Your task to perform on an android device: Clear all items from cart on bestbuy. Add razer huntsman to the cart on bestbuy Image 0: 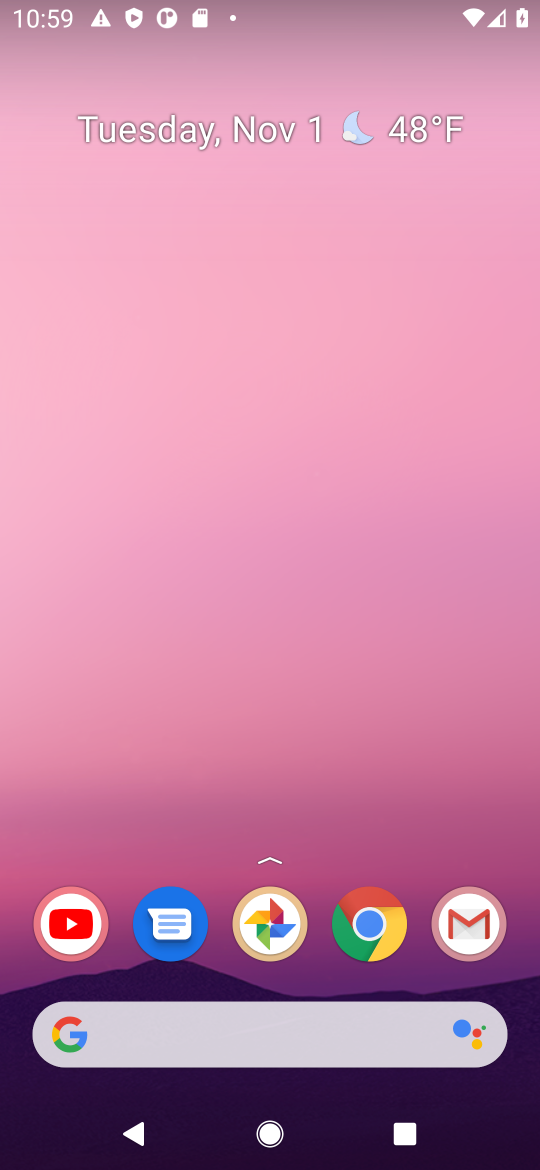
Step 0: click (382, 944)
Your task to perform on an android device: Clear all items from cart on bestbuy. Add razer huntsman to the cart on bestbuy Image 1: 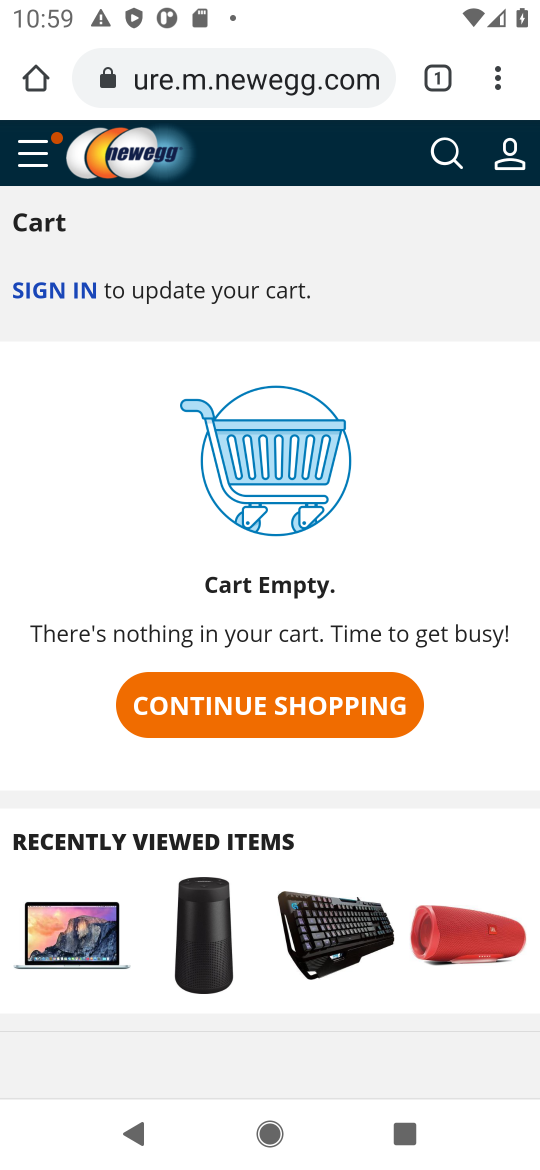
Step 1: click (289, 95)
Your task to perform on an android device: Clear all items from cart on bestbuy. Add razer huntsman to the cart on bestbuy Image 2: 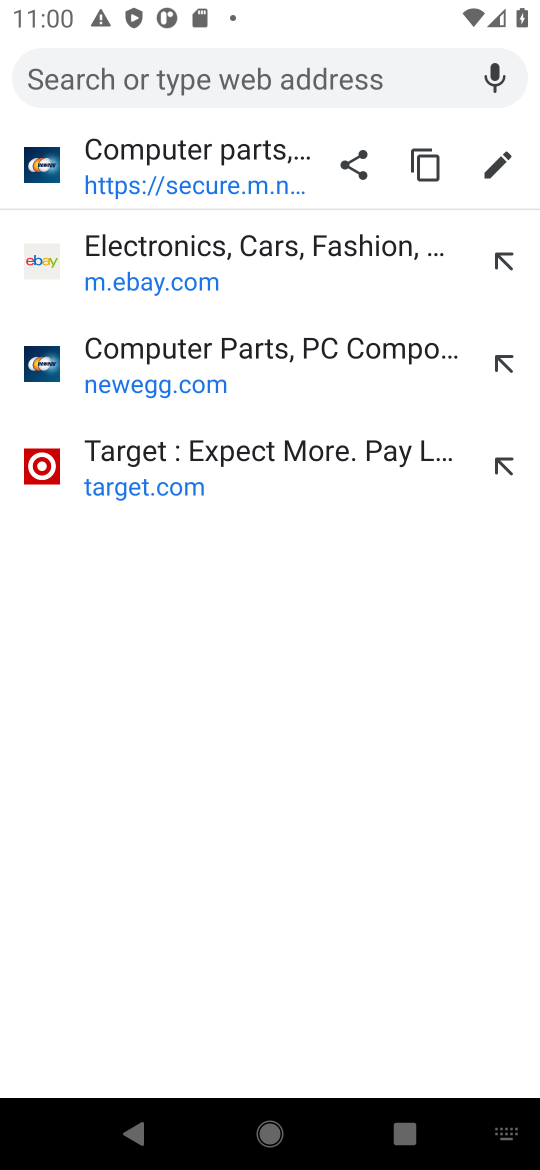
Step 2: type "bestbuy"
Your task to perform on an android device: Clear all items from cart on bestbuy. Add razer huntsman to the cart on bestbuy Image 3: 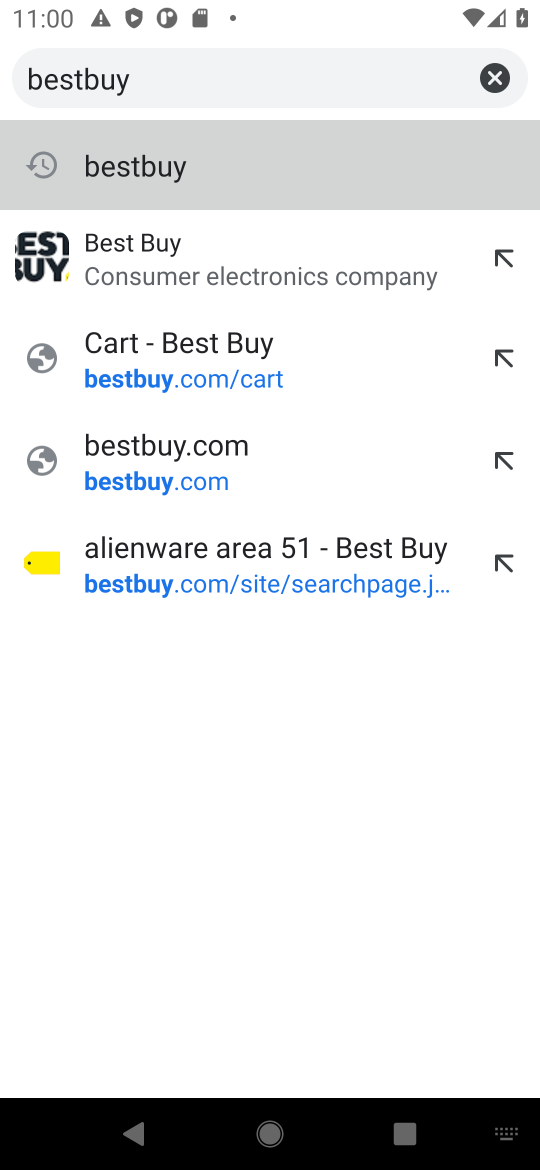
Step 3: click (173, 168)
Your task to perform on an android device: Clear all items from cart on bestbuy. Add razer huntsman to the cart on bestbuy Image 4: 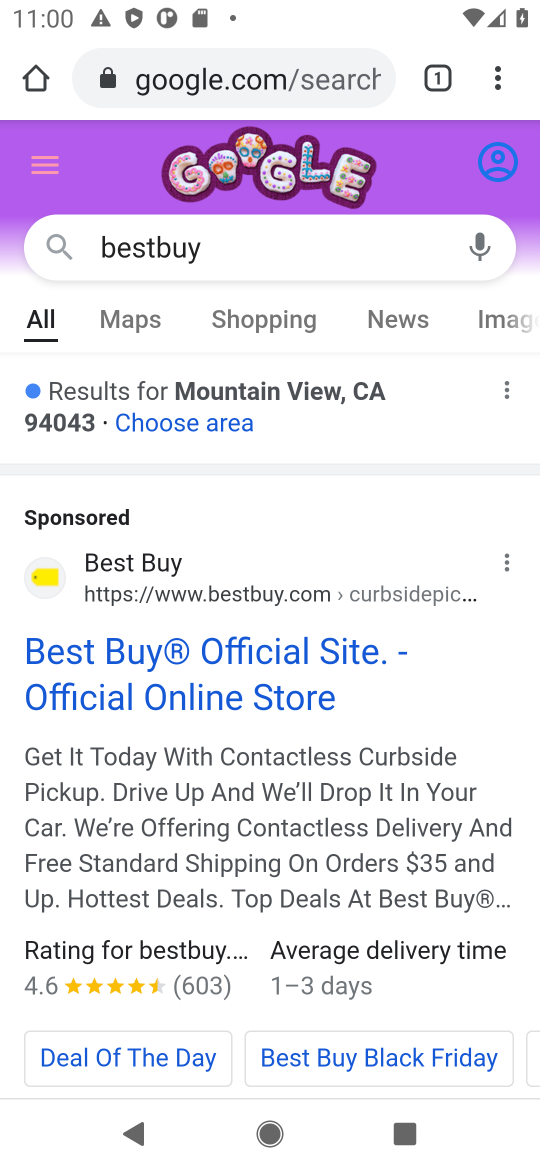
Step 4: click (80, 655)
Your task to perform on an android device: Clear all items from cart on bestbuy. Add razer huntsman to the cart on bestbuy Image 5: 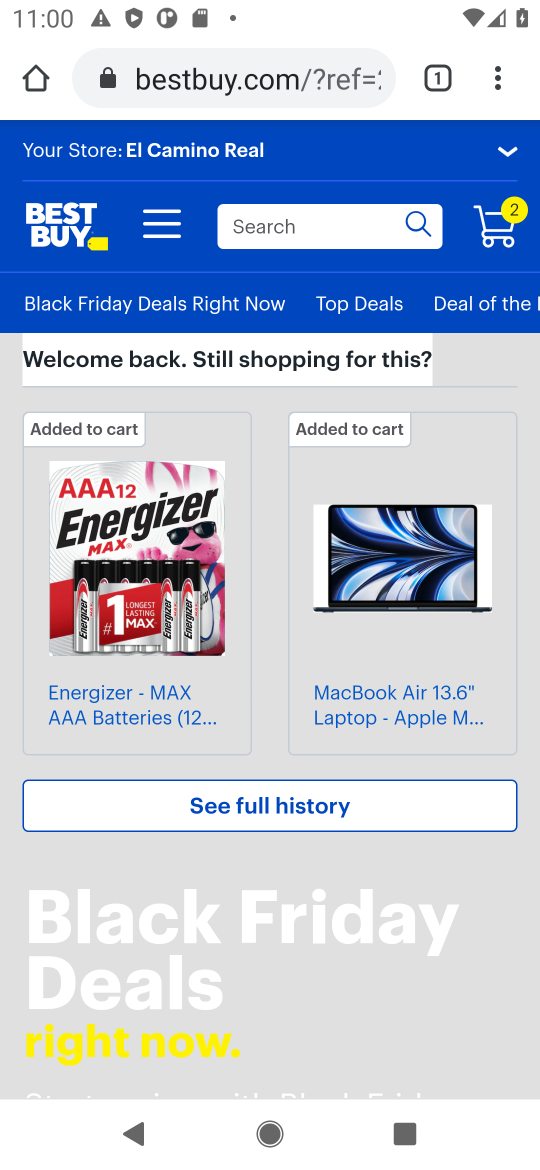
Step 5: click (507, 234)
Your task to perform on an android device: Clear all items from cart on bestbuy. Add razer huntsman to the cart on bestbuy Image 6: 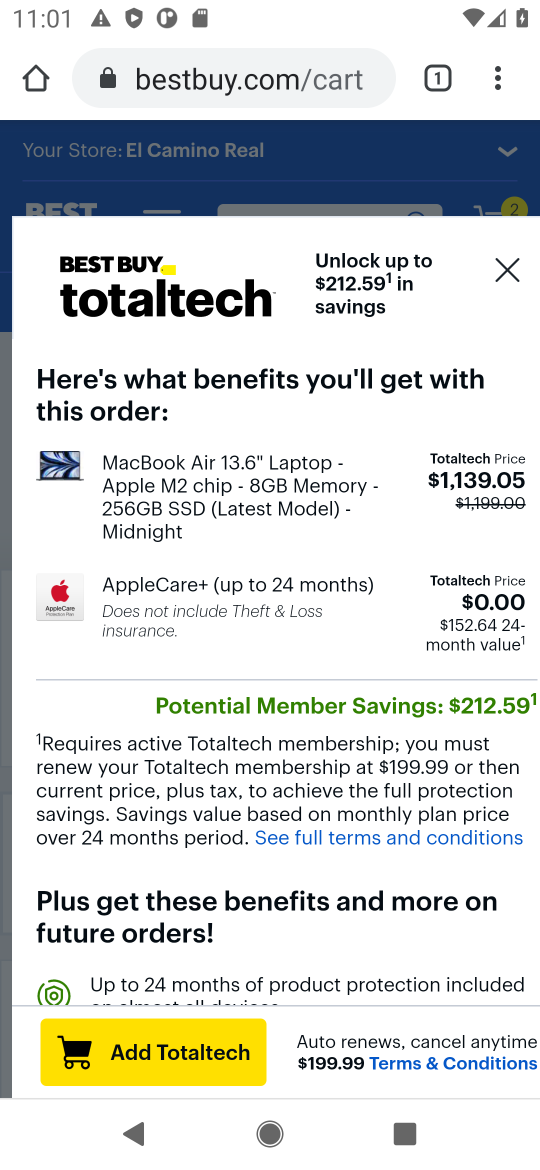
Step 6: click (506, 273)
Your task to perform on an android device: Clear all items from cart on bestbuy. Add razer huntsman to the cart on bestbuy Image 7: 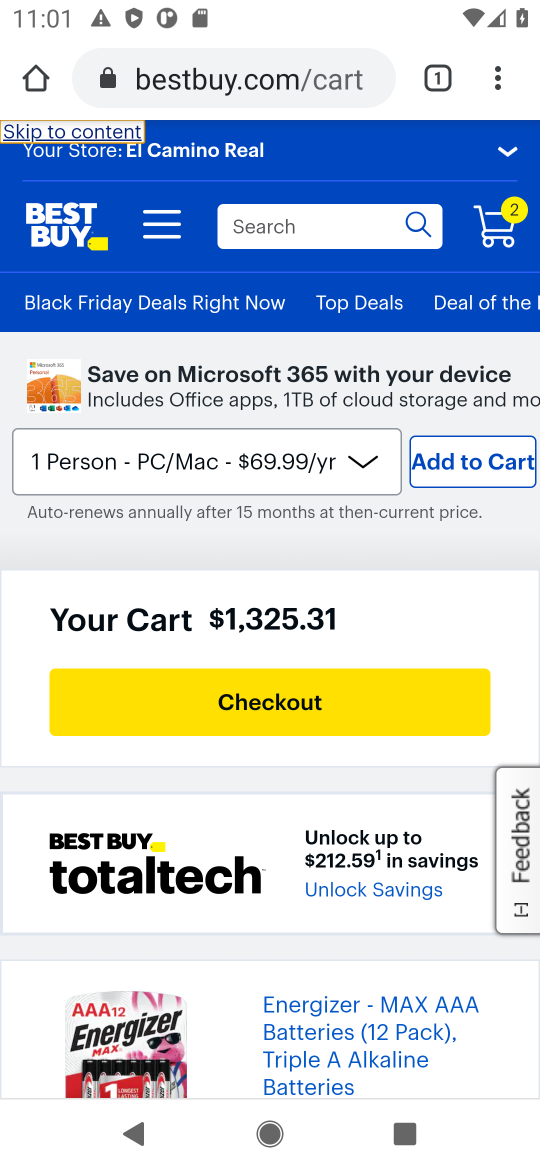
Step 7: click (501, 229)
Your task to perform on an android device: Clear all items from cart on bestbuy. Add razer huntsman to the cart on bestbuy Image 8: 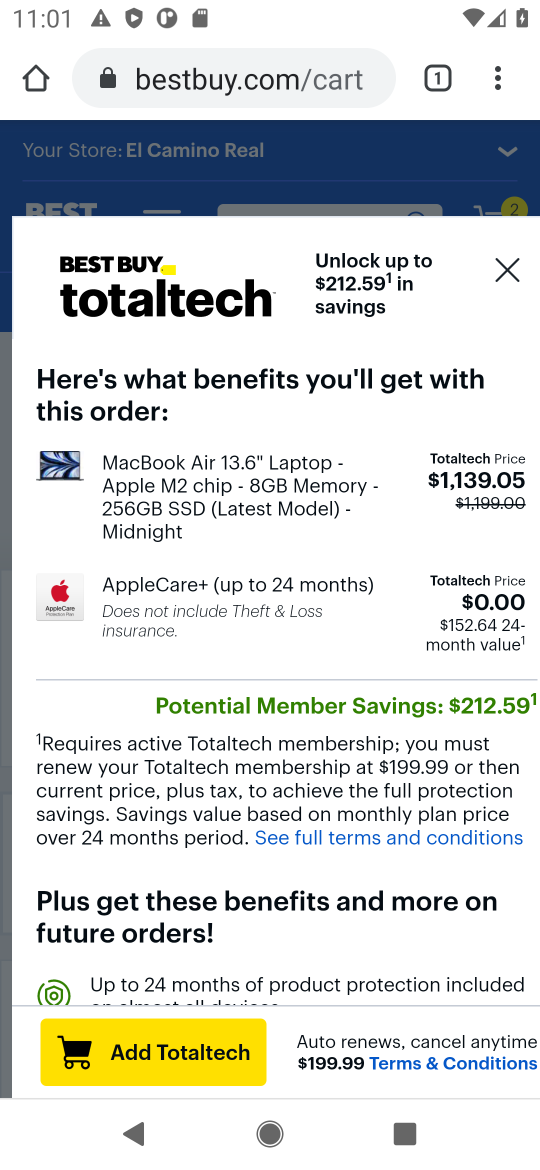
Step 8: click (512, 269)
Your task to perform on an android device: Clear all items from cart on bestbuy. Add razer huntsman to the cart on bestbuy Image 9: 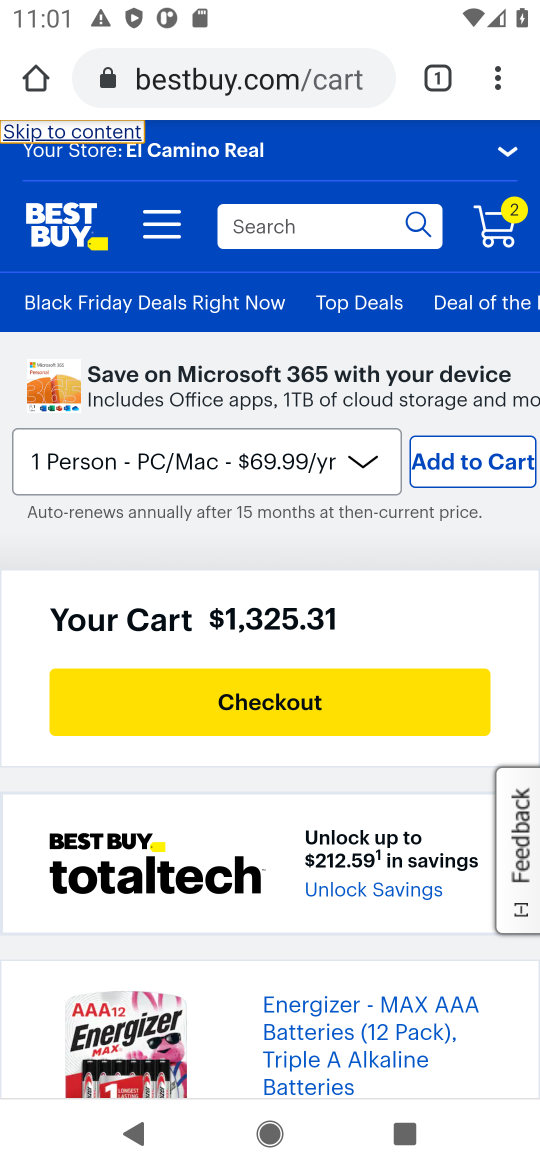
Step 9: drag from (276, 914) to (192, 323)
Your task to perform on an android device: Clear all items from cart on bestbuy. Add razer huntsman to the cart on bestbuy Image 10: 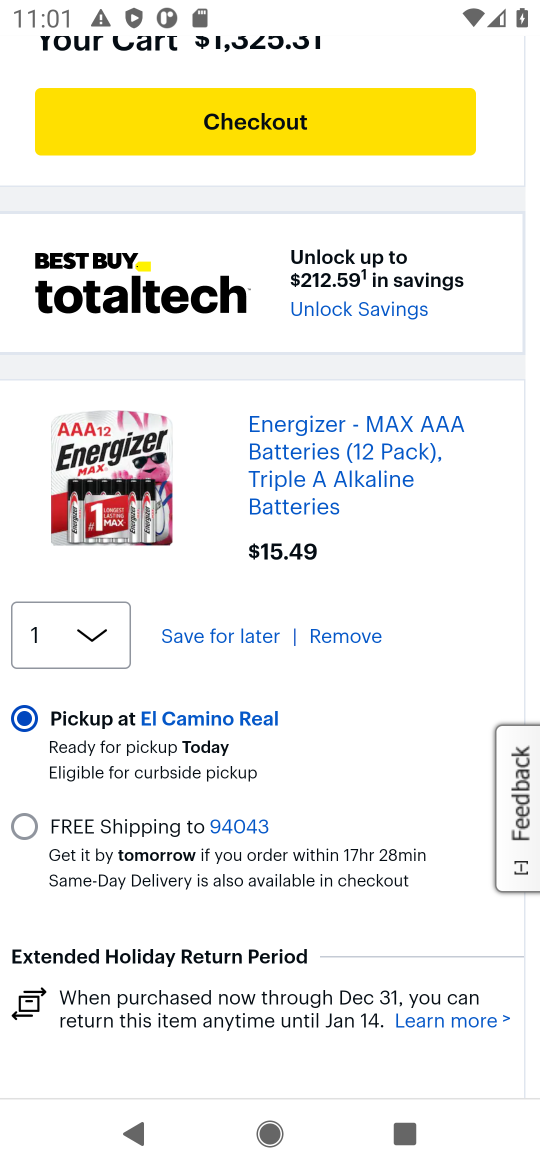
Step 10: click (336, 636)
Your task to perform on an android device: Clear all items from cart on bestbuy. Add razer huntsman to the cart on bestbuy Image 11: 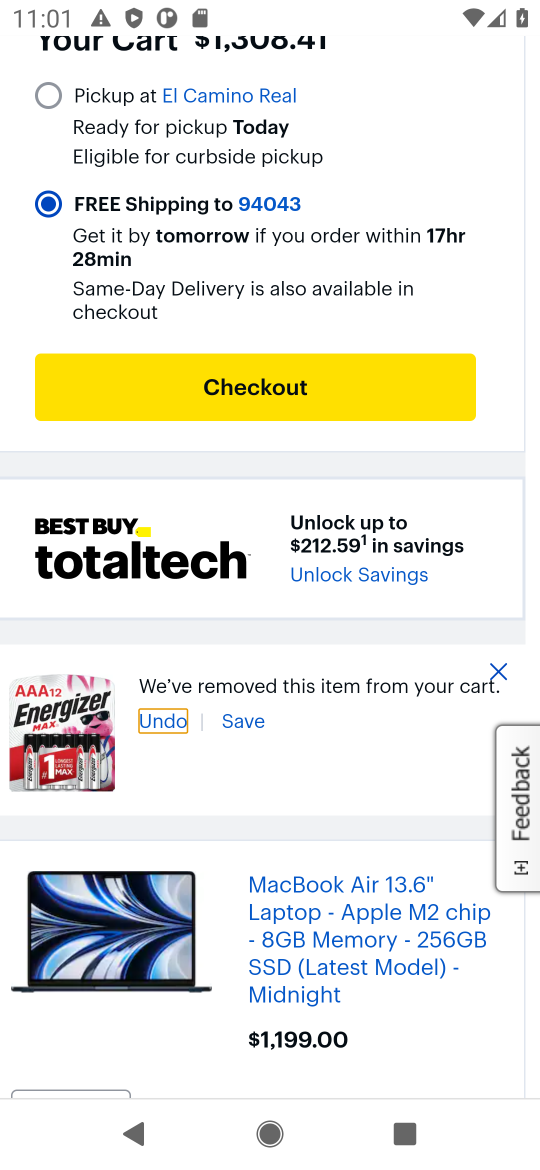
Step 11: drag from (443, 1006) to (374, 385)
Your task to perform on an android device: Clear all items from cart on bestbuy. Add razer huntsman to the cart on bestbuy Image 12: 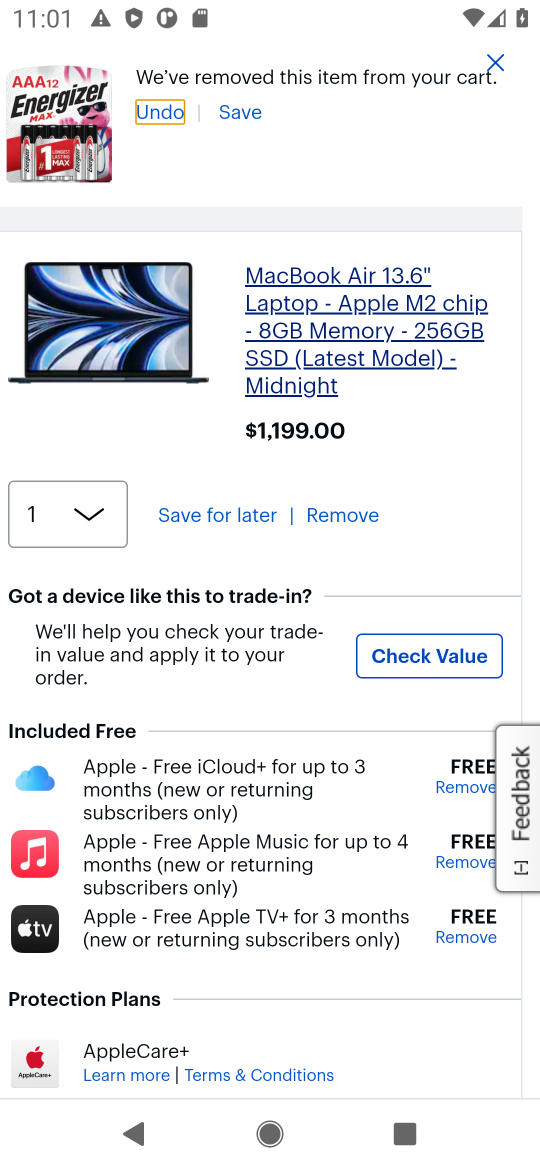
Step 12: click (342, 512)
Your task to perform on an android device: Clear all items from cart on bestbuy. Add razer huntsman to the cart on bestbuy Image 13: 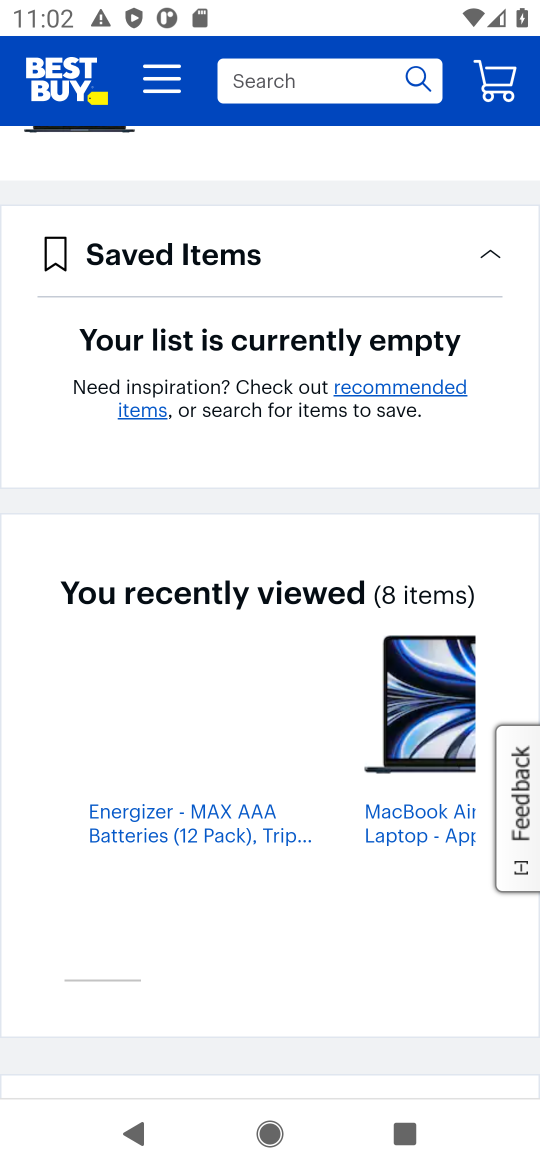
Step 13: click (315, 78)
Your task to perform on an android device: Clear all items from cart on bestbuy. Add razer huntsman to the cart on bestbuy Image 14: 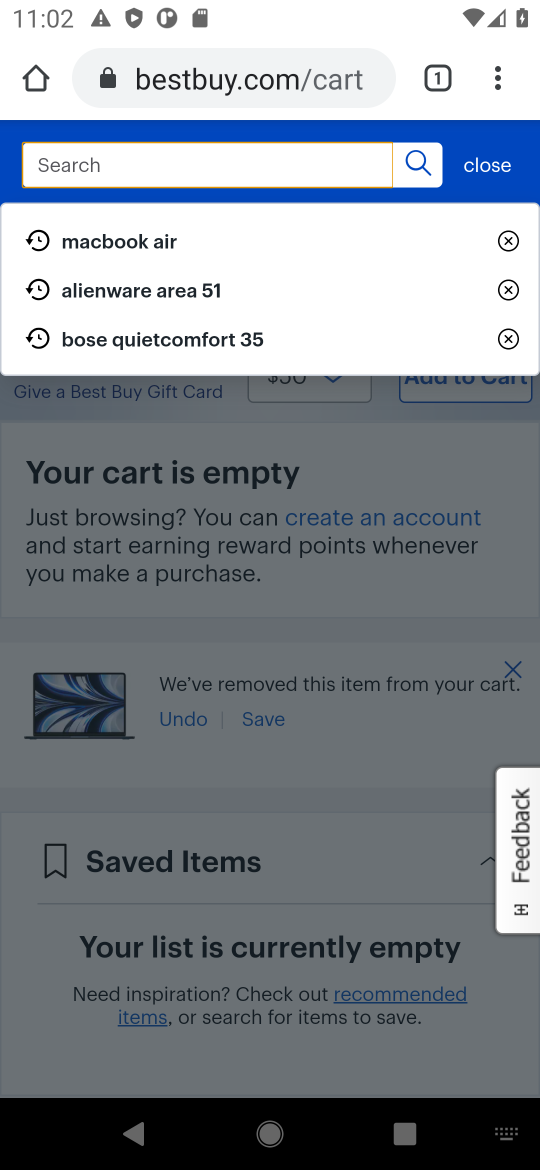
Step 14: type "razer huntsman"
Your task to perform on an android device: Clear all items from cart on bestbuy. Add razer huntsman to the cart on bestbuy Image 15: 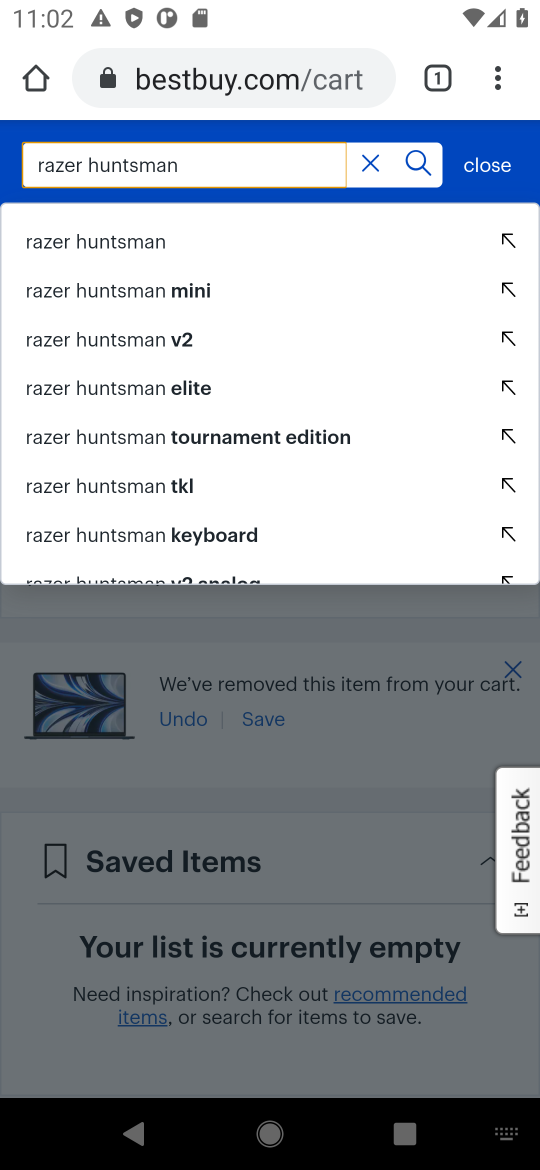
Step 15: click (416, 162)
Your task to perform on an android device: Clear all items from cart on bestbuy. Add razer huntsman to the cart on bestbuy Image 16: 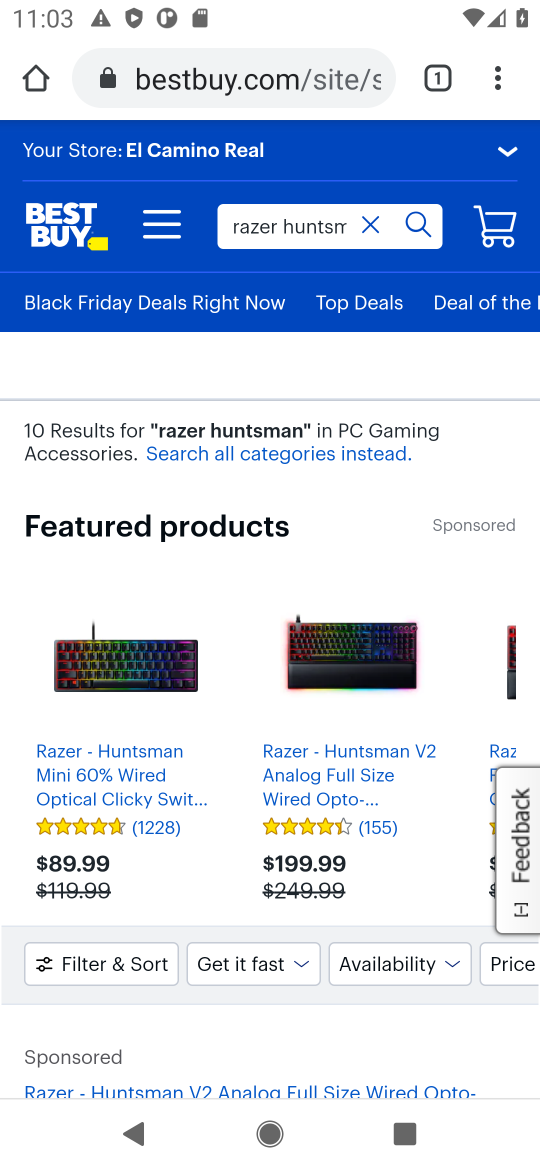
Step 16: drag from (296, 568) to (270, 269)
Your task to perform on an android device: Clear all items from cart on bestbuy. Add razer huntsman to the cart on bestbuy Image 17: 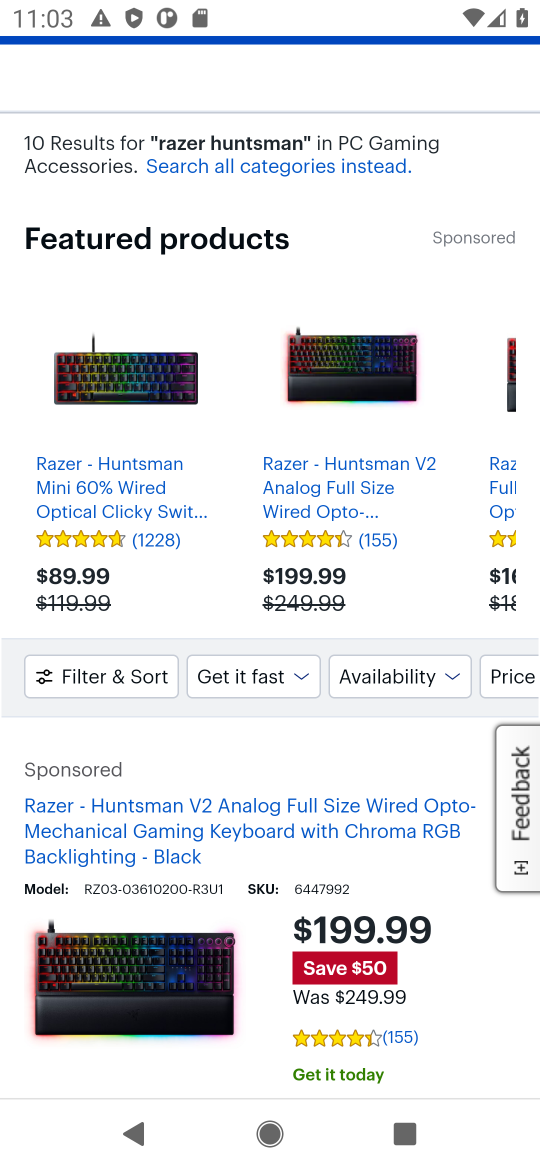
Step 17: drag from (430, 870) to (395, 566)
Your task to perform on an android device: Clear all items from cart on bestbuy. Add razer huntsman to the cart on bestbuy Image 18: 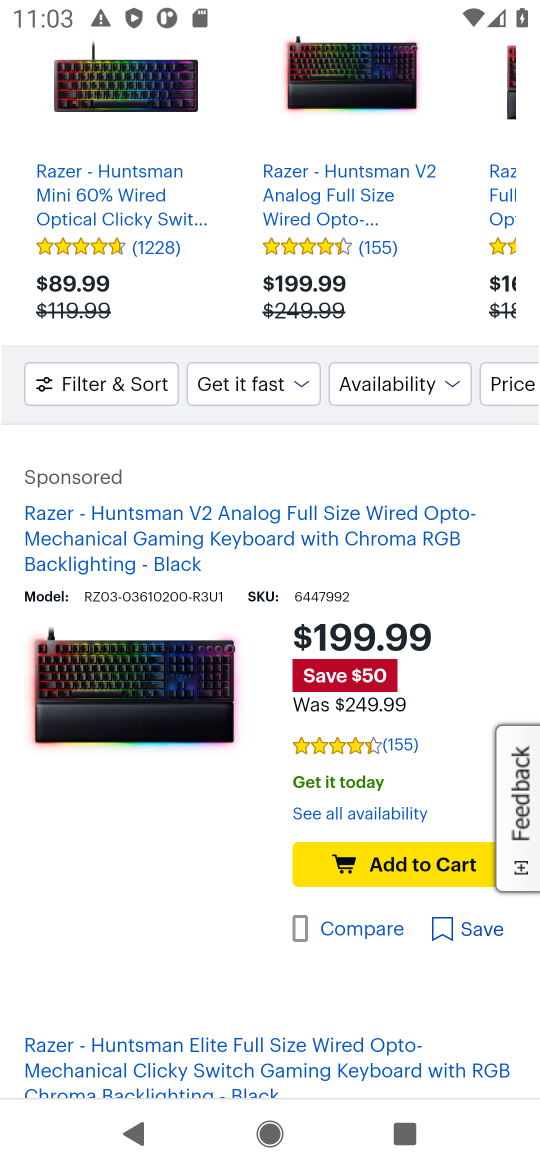
Step 18: click (292, 531)
Your task to perform on an android device: Clear all items from cart on bestbuy. Add razer huntsman to the cart on bestbuy Image 19: 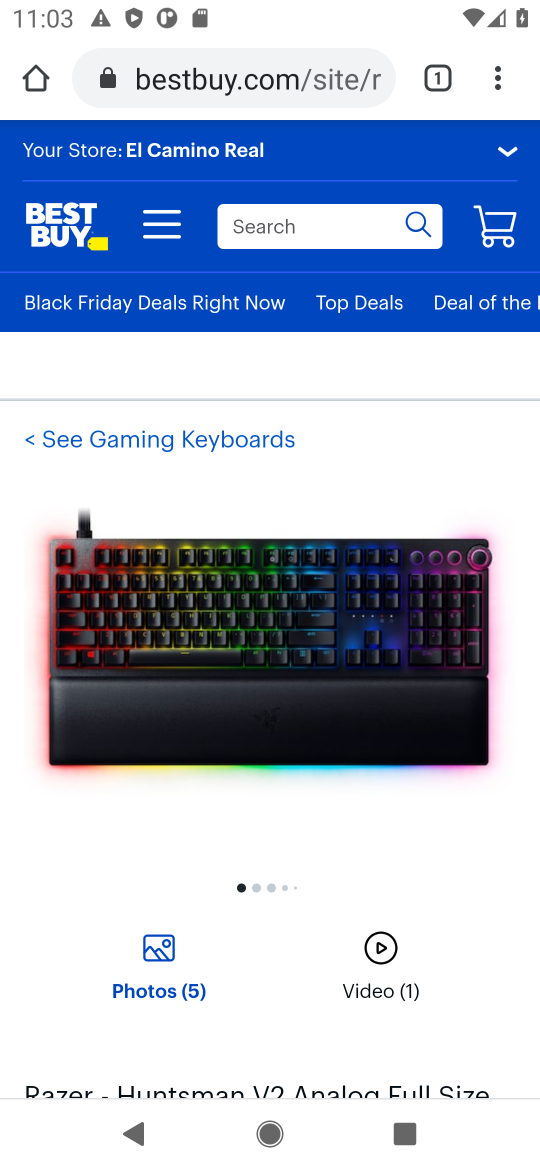
Step 19: drag from (82, 469) to (118, 388)
Your task to perform on an android device: Clear all items from cart on bestbuy. Add razer huntsman to the cart on bestbuy Image 20: 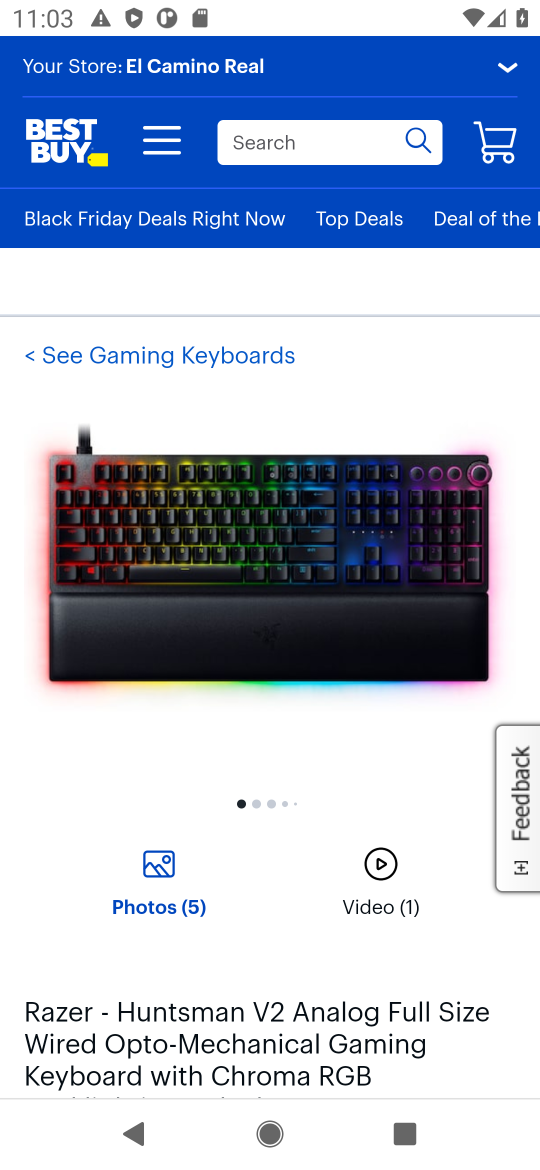
Step 20: drag from (67, 781) to (98, 507)
Your task to perform on an android device: Clear all items from cart on bestbuy. Add razer huntsman to the cart on bestbuy Image 21: 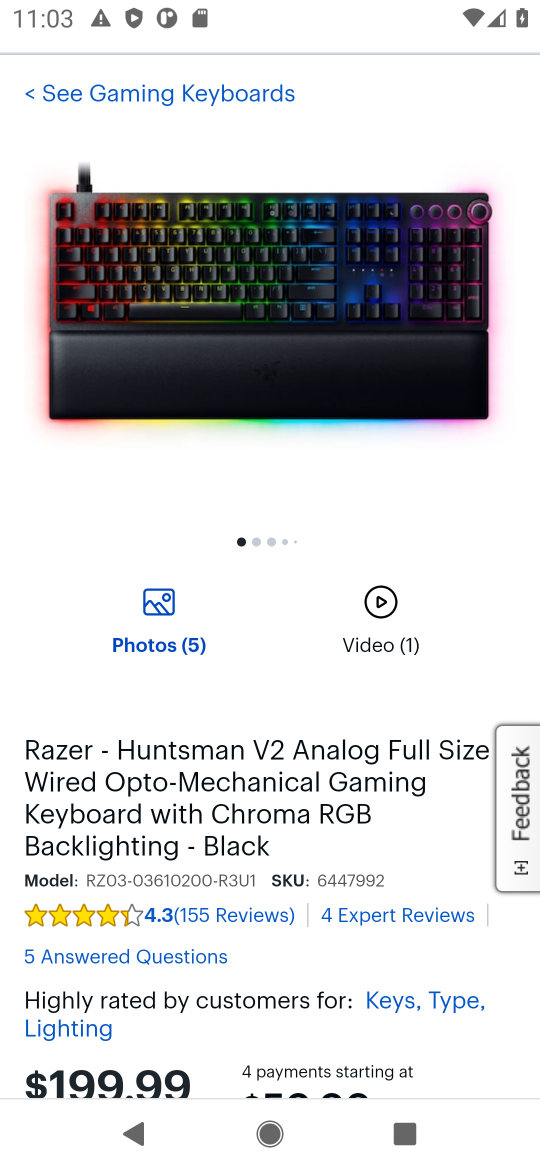
Step 21: drag from (198, 1039) to (145, 180)
Your task to perform on an android device: Clear all items from cart on bestbuy. Add razer huntsman to the cart on bestbuy Image 22: 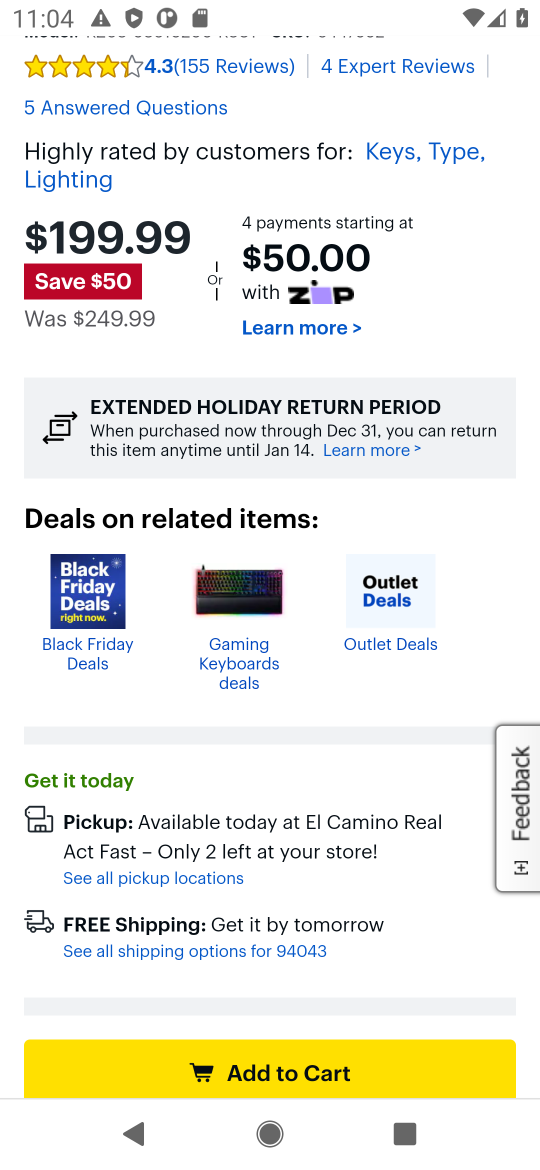
Step 22: click (277, 1075)
Your task to perform on an android device: Clear all items from cart on bestbuy. Add razer huntsman to the cart on bestbuy Image 23: 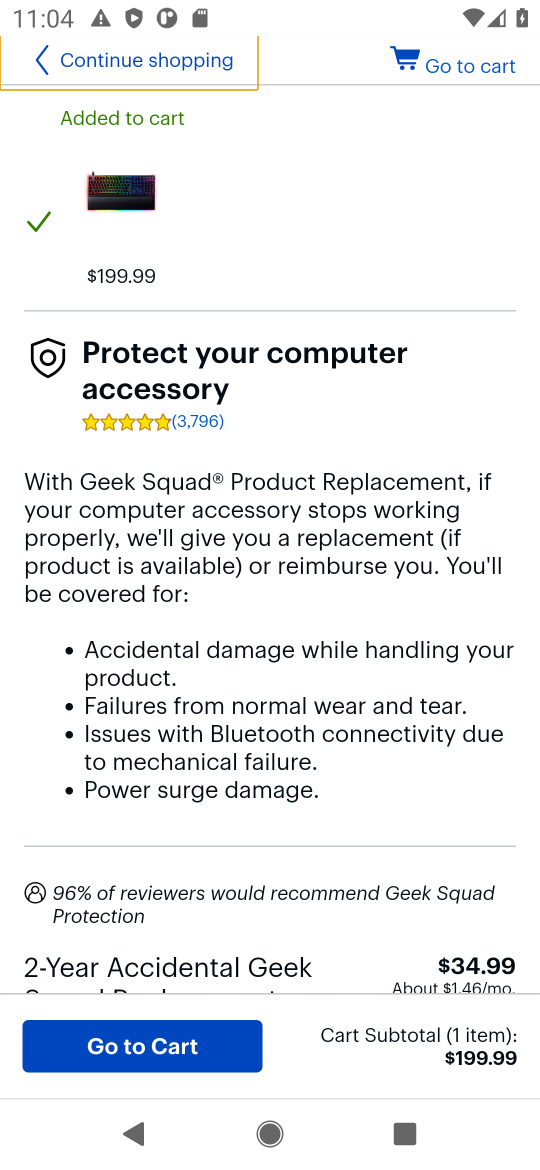
Step 23: task complete